Your task to perform on an android device: turn on location history Image 0: 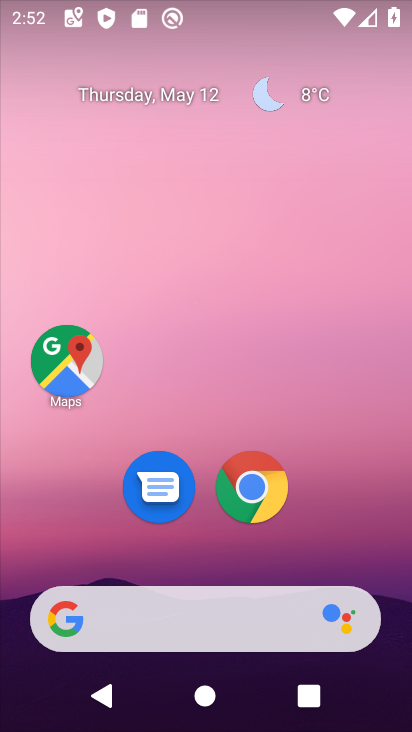
Step 0: drag from (400, 567) to (307, 104)
Your task to perform on an android device: turn on location history Image 1: 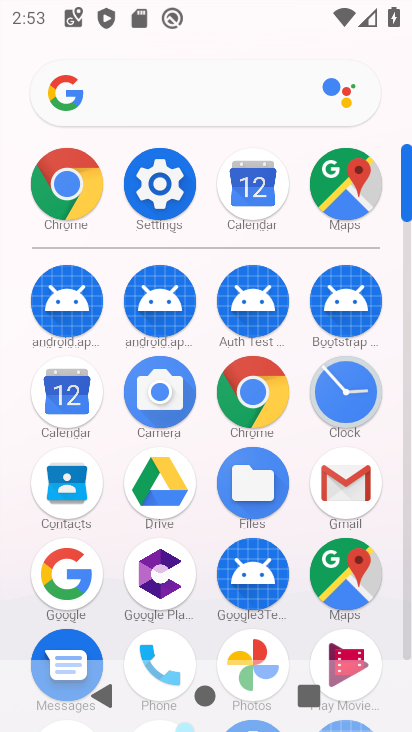
Step 1: click (162, 182)
Your task to perform on an android device: turn on location history Image 2: 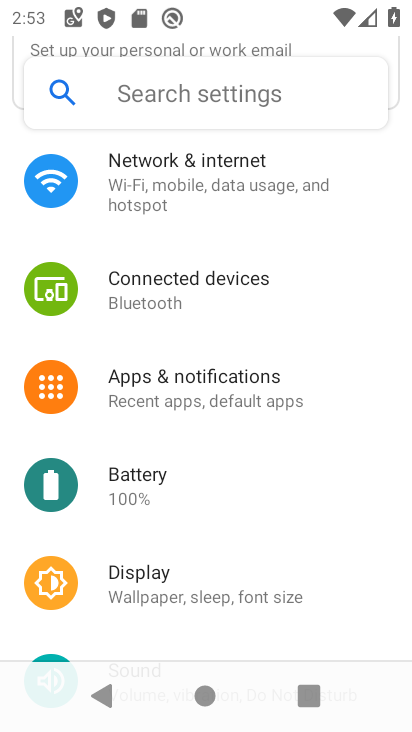
Step 2: drag from (251, 515) to (270, 229)
Your task to perform on an android device: turn on location history Image 3: 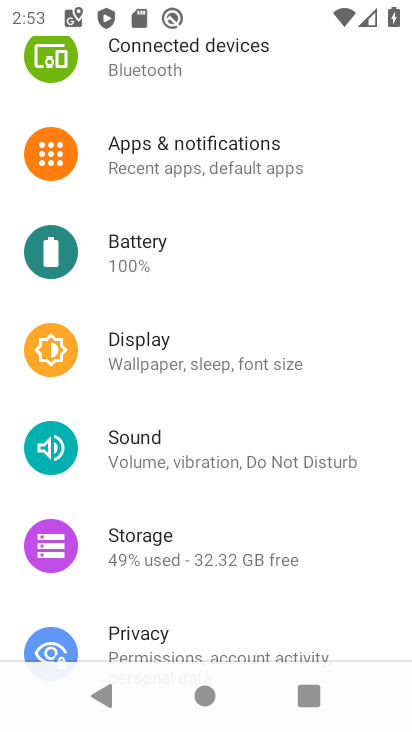
Step 3: drag from (280, 603) to (321, 195)
Your task to perform on an android device: turn on location history Image 4: 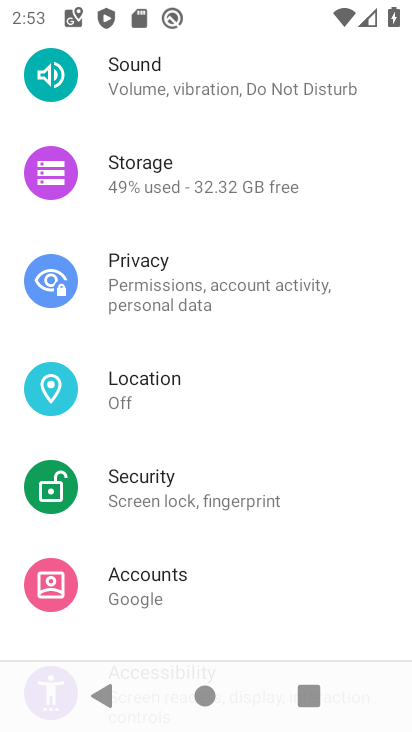
Step 4: click (189, 392)
Your task to perform on an android device: turn on location history Image 5: 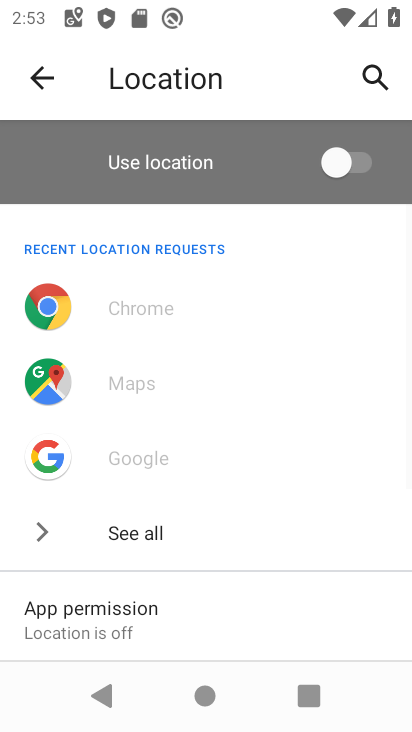
Step 5: drag from (299, 601) to (280, 224)
Your task to perform on an android device: turn on location history Image 6: 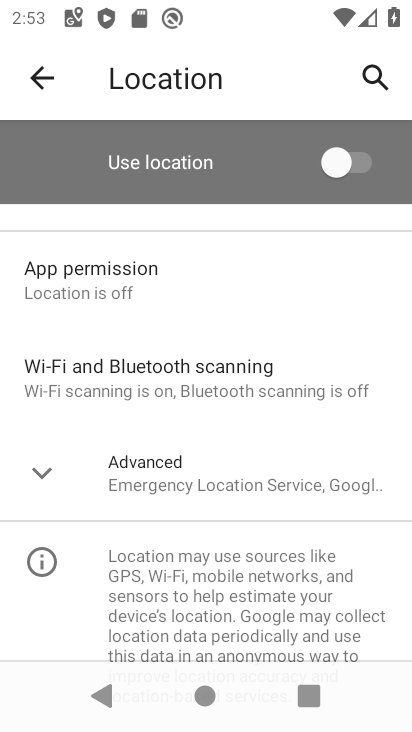
Step 6: click (222, 469)
Your task to perform on an android device: turn on location history Image 7: 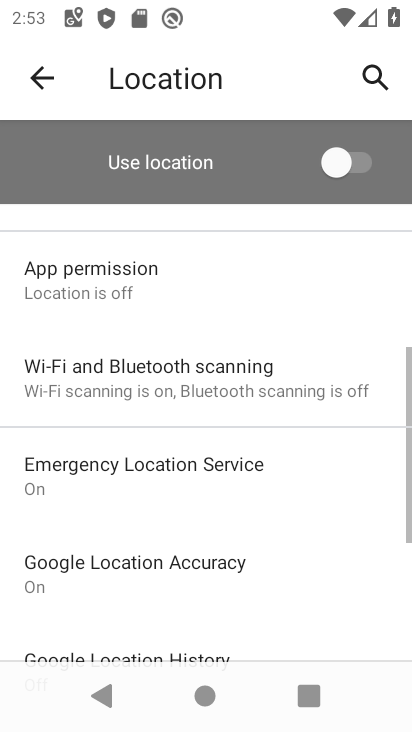
Step 7: drag from (327, 569) to (340, 288)
Your task to perform on an android device: turn on location history Image 8: 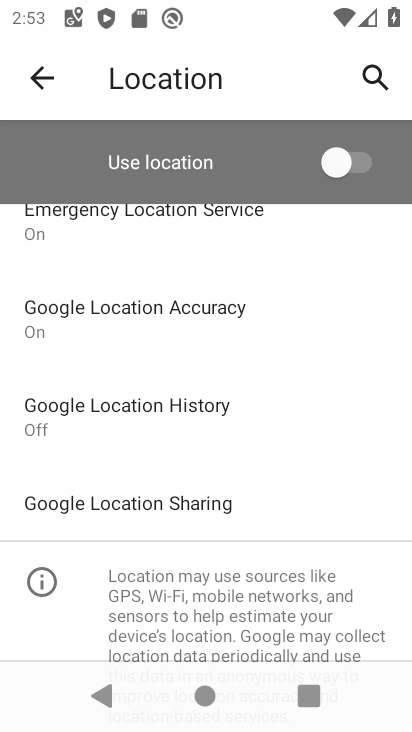
Step 8: click (150, 420)
Your task to perform on an android device: turn on location history Image 9: 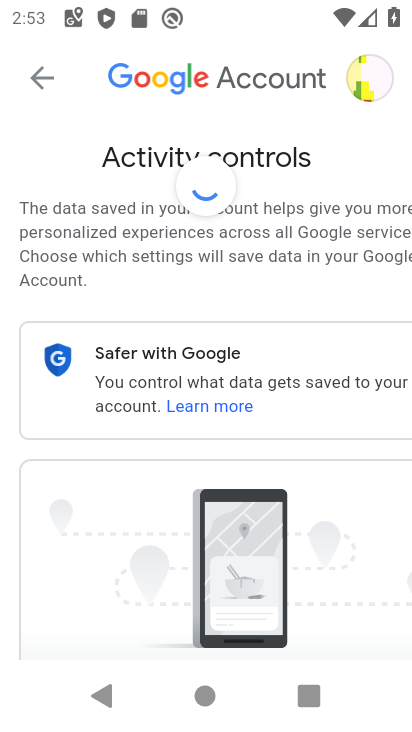
Step 9: drag from (194, 413) to (225, 155)
Your task to perform on an android device: turn on location history Image 10: 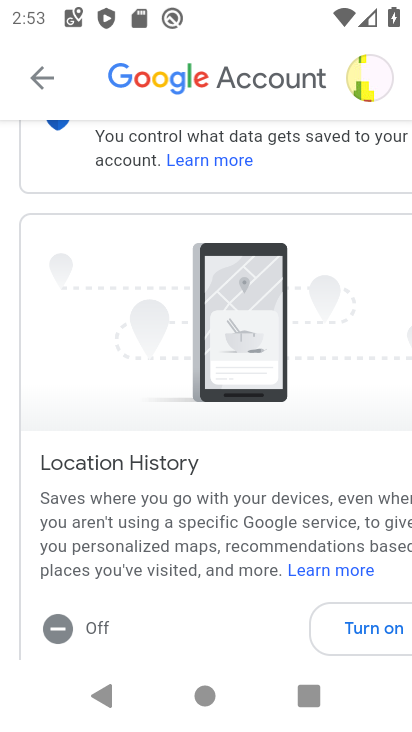
Step 10: drag from (312, 480) to (343, 330)
Your task to perform on an android device: turn on location history Image 11: 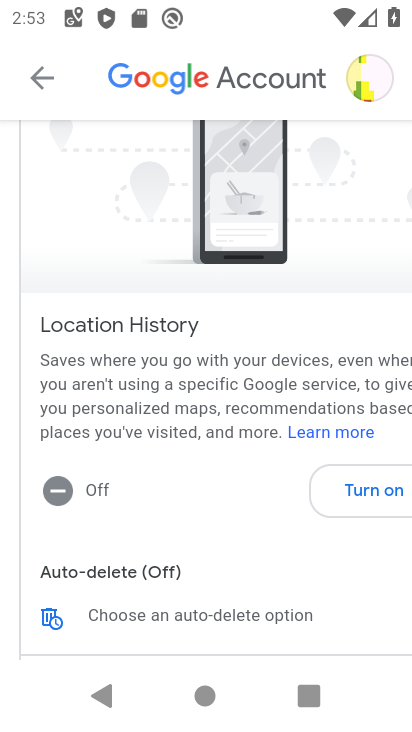
Step 11: click (383, 497)
Your task to perform on an android device: turn on location history Image 12: 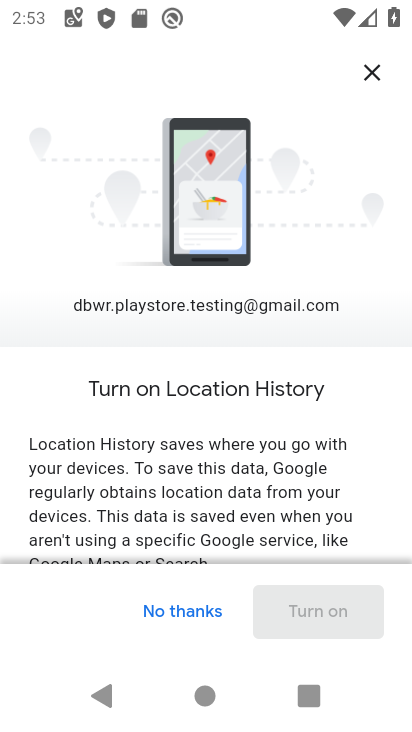
Step 12: drag from (207, 504) to (230, 60)
Your task to perform on an android device: turn on location history Image 13: 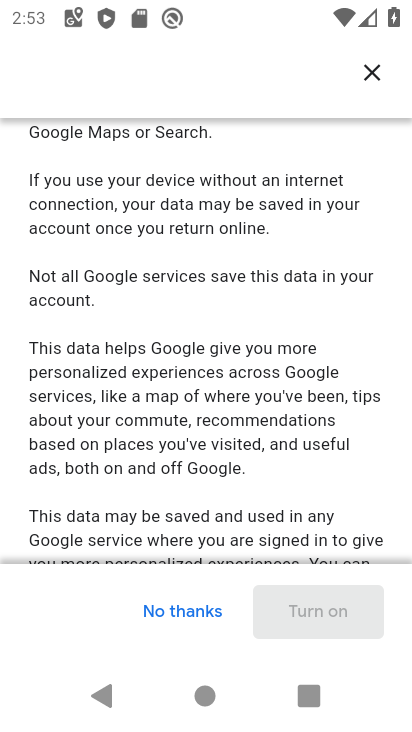
Step 13: drag from (229, 456) to (299, 97)
Your task to perform on an android device: turn on location history Image 14: 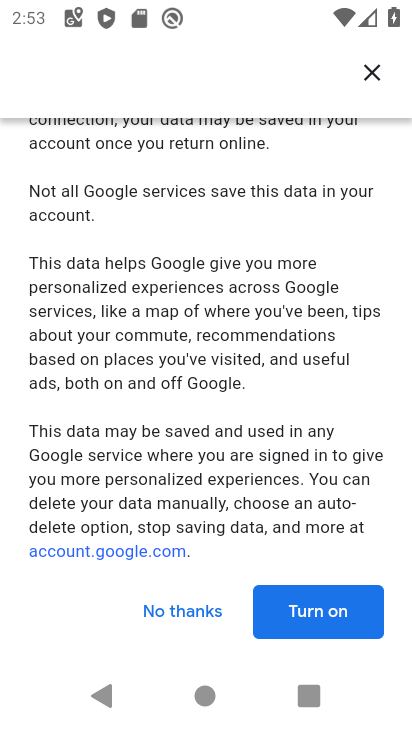
Step 14: click (316, 607)
Your task to perform on an android device: turn on location history Image 15: 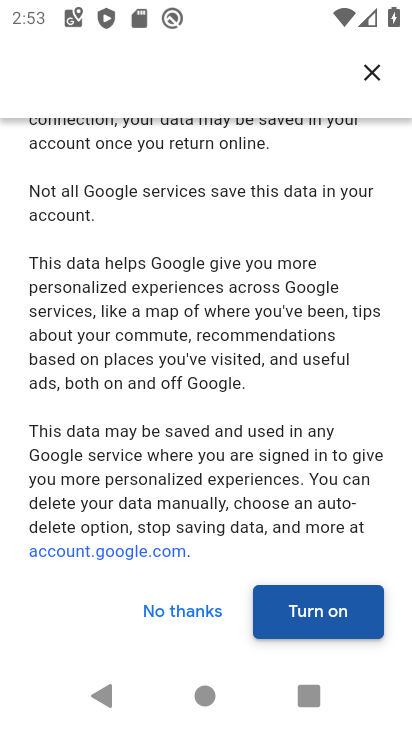
Step 15: click (325, 622)
Your task to perform on an android device: turn on location history Image 16: 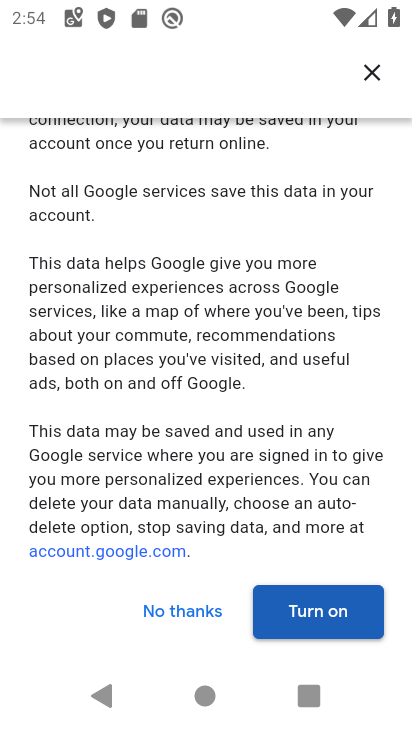
Step 16: click (325, 622)
Your task to perform on an android device: turn on location history Image 17: 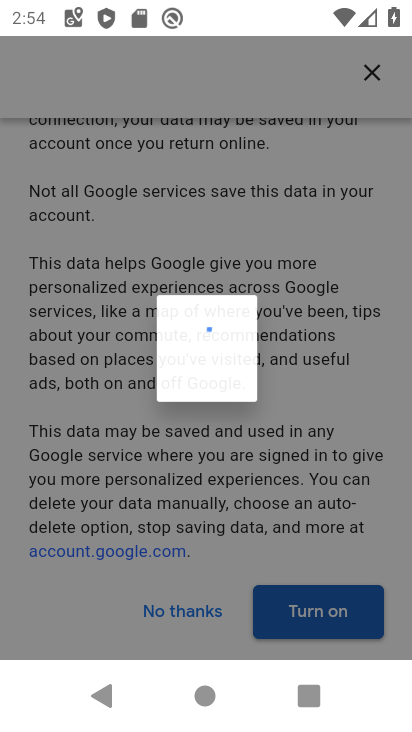
Step 17: click (283, 611)
Your task to perform on an android device: turn on location history Image 18: 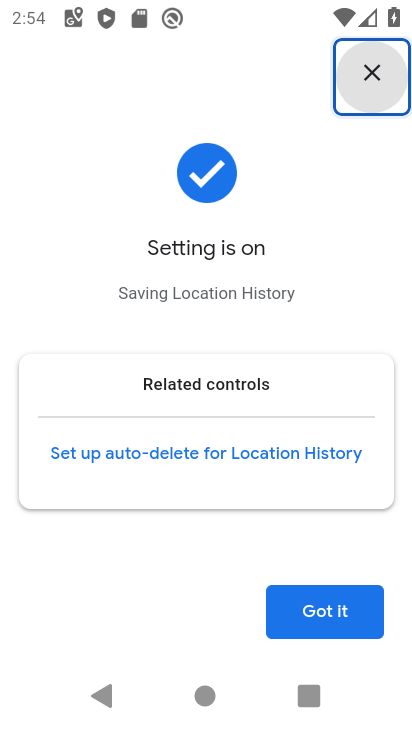
Step 18: task complete